Your task to perform on an android device: Open Google Maps Image 0: 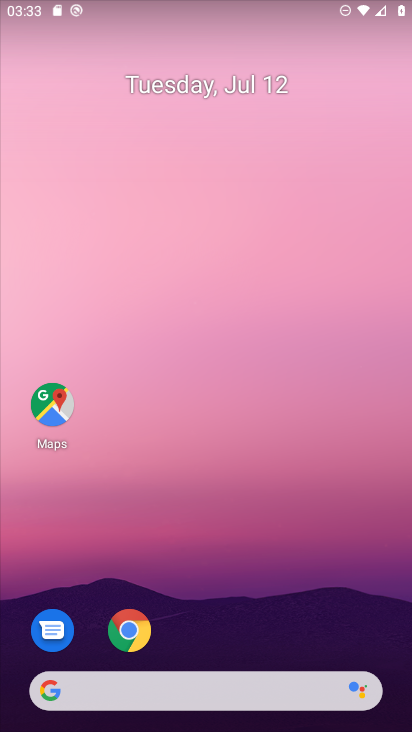
Step 0: click (53, 405)
Your task to perform on an android device: Open Google Maps Image 1: 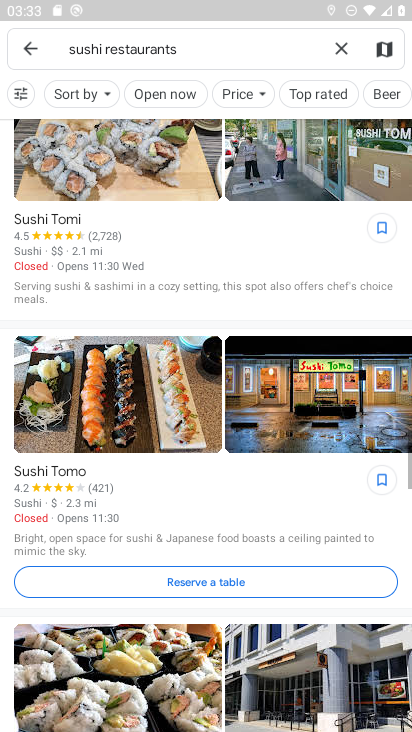
Step 1: click (342, 42)
Your task to perform on an android device: Open Google Maps Image 2: 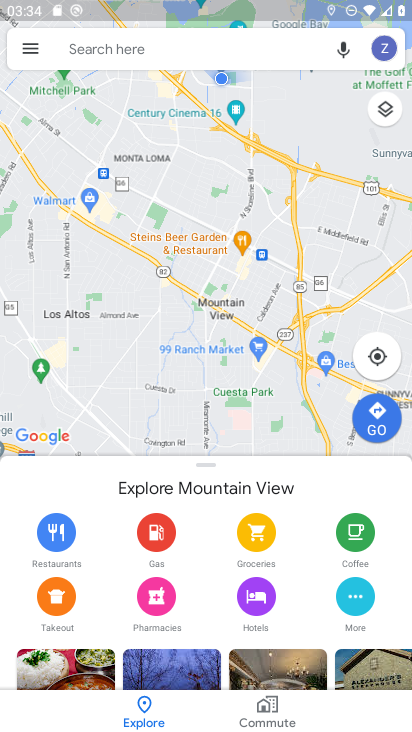
Step 2: task complete